Your task to perform on an android device: Open location settings Image 0: 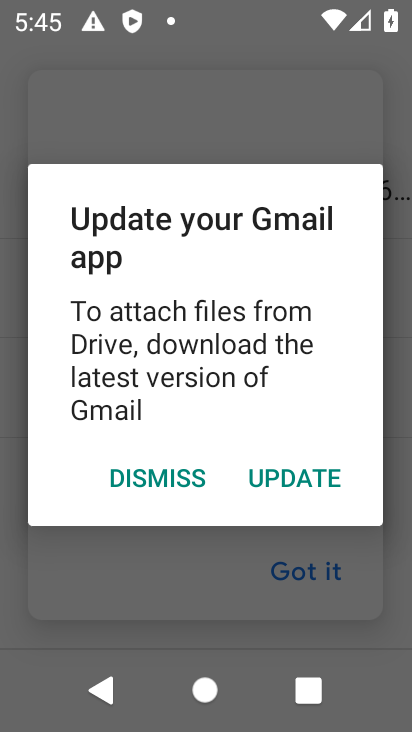
Step 0: press home button
Your task to perform on an android device: Open location settings Image 1: 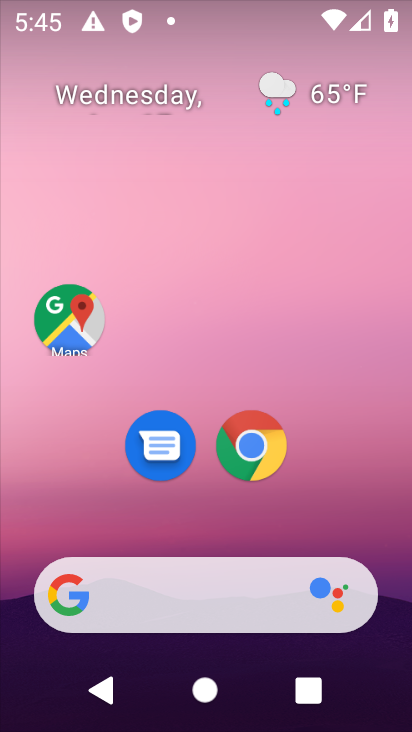
Step 1: drag from (206, 514) to (221, 167)
Your task to perform on an android device: Open location settings Image 2: 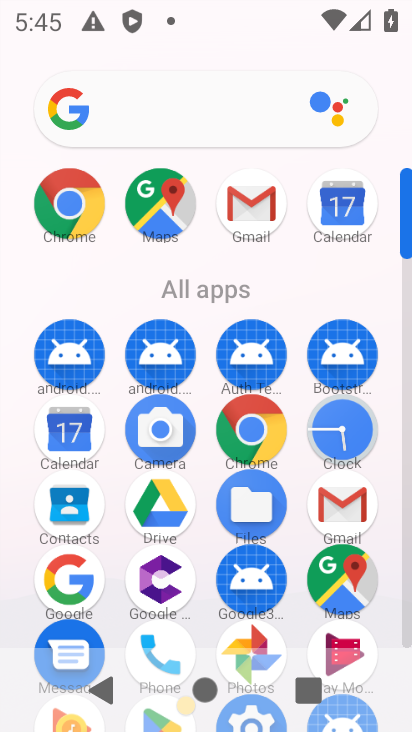
Step 2: drag from (210, 540) to (225, 152)
Your task to perform on an android device: Open location settings Image 3: 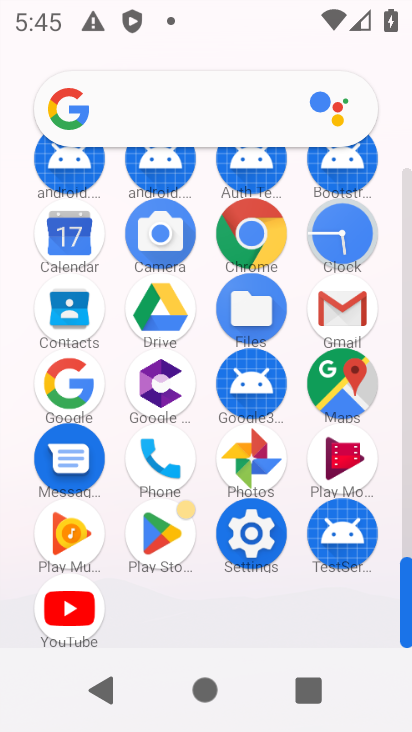
Step 3: click (259, 534)
Your task to perform on an android device: Open location settings Image 4: 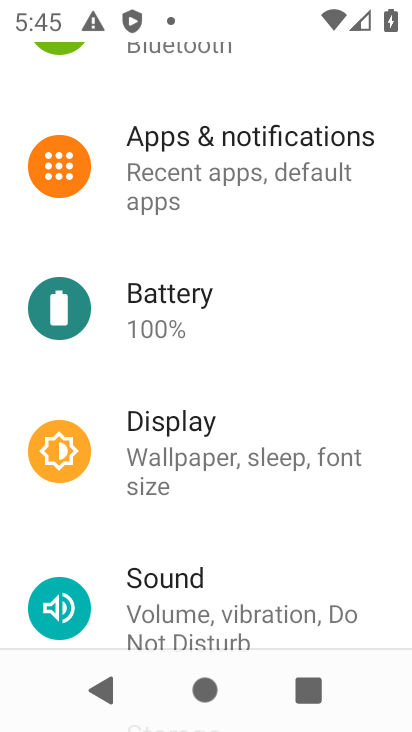
Step 4: drag from (242, 545) to (264, 167)
Your task to perform on an android device: Open location settings Image 5: 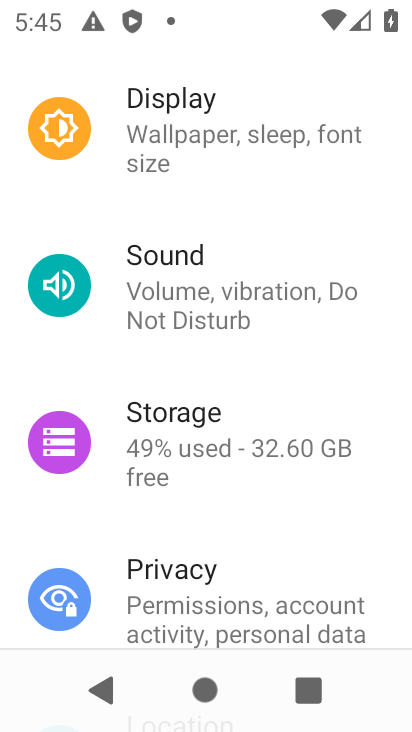
Step 5: drag from (223, 537) to (251, 202)
Your task to perform on an android device: Open location settings Image 6: 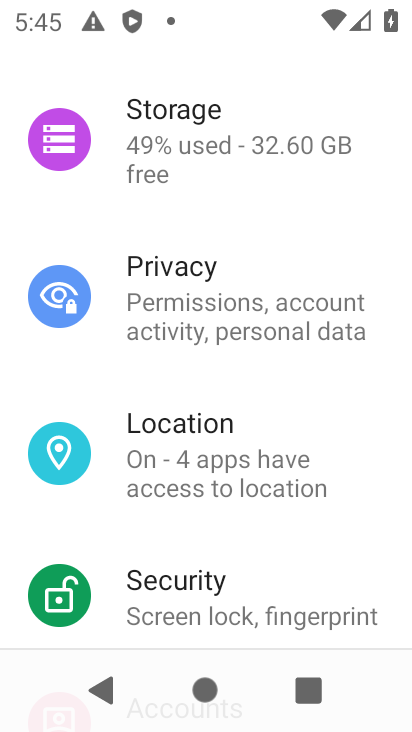
Step 6: click (198, 460)
Your task to perform on an android device: Open location settings Image 7: 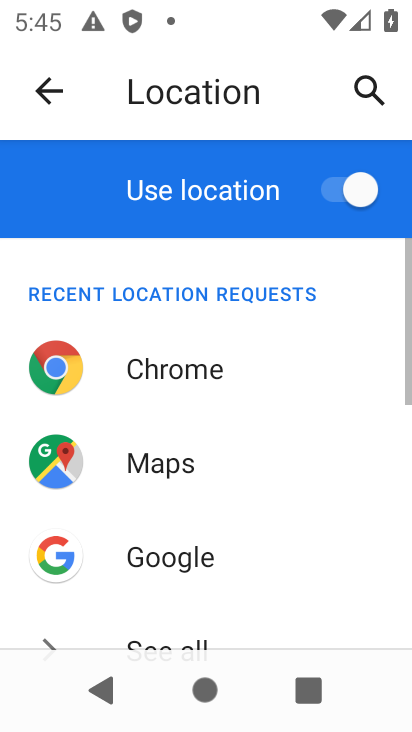
Step 7: task complete